Your task to perform on an android device: turn off priority inbox in the gmail app Image 0: 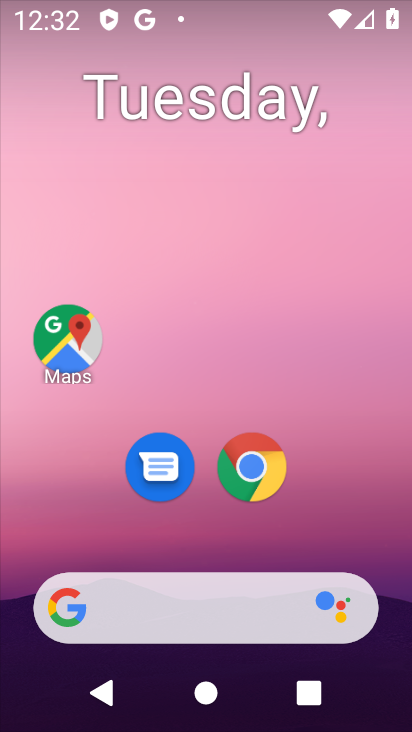
Step 0: drag from (355, 516) to (269, 15)
Your task to perform on an android device: turn off priority inbox in the gmail app Image 1: 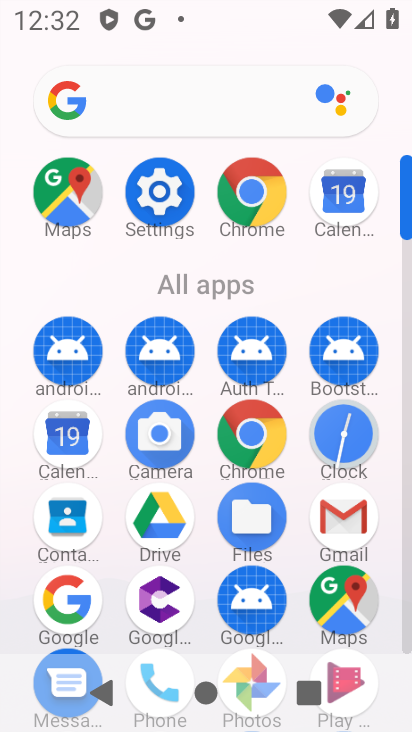
Step 1: drag from (18, 531) to (0, 213)
Your task to perform on an android device: turn off priority inbox in the gmail app Image 2: 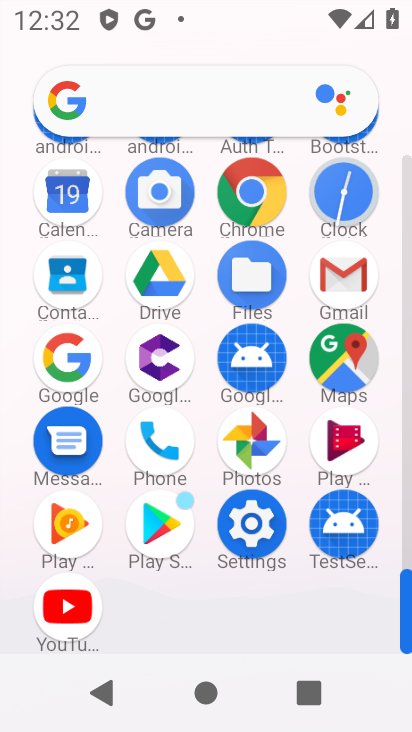
Step 2: click (346, 264)
Your task to perform on an android device: turn off priority inbox in the gmail app Image 3: 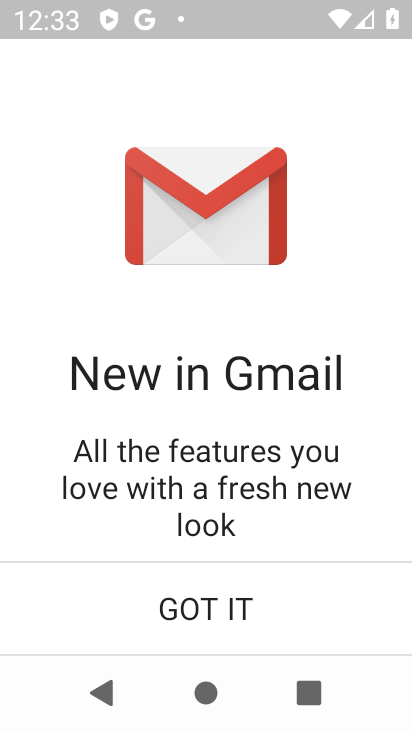
Step 3: click (214, 600)
Your task to perform on an android device: turn off priority inbox in the gmail app Image 4: 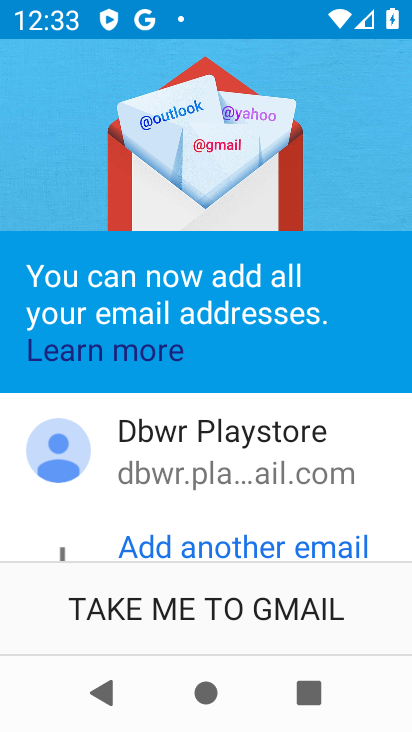
Step 4: click (242, 620)
Your task to perform on an android device: turn off priority inbox in the gmail app Image 5: 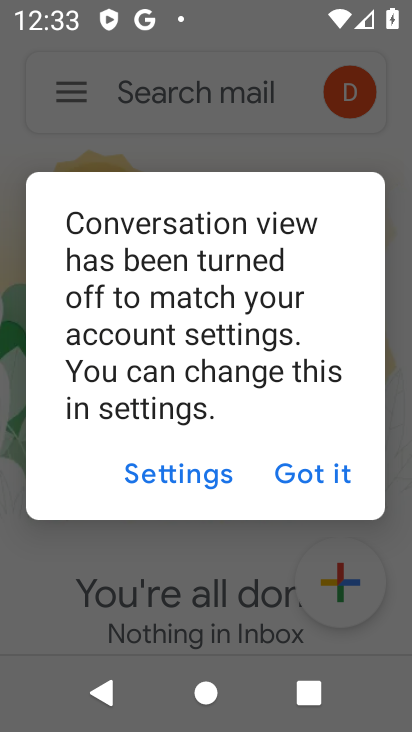
Step 5: click (336, 463)
Your task to perform on an android device: turn off priority inbox in the gmail app Image 6: 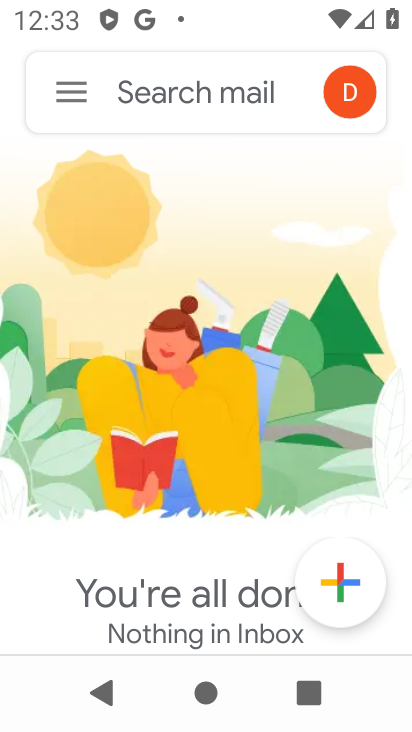
Step 6: click (54, 94)
Your task to perform on an android device: turn off priority inbox in the gmail app Image 7: 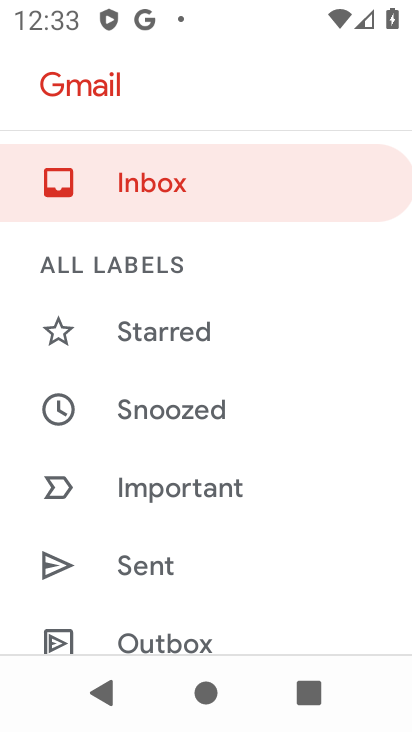
Step 7: drag from (207, 612) to (256, 126)
Your task to perform on an android device: turn off priority inbox in the gmail app Image 8: 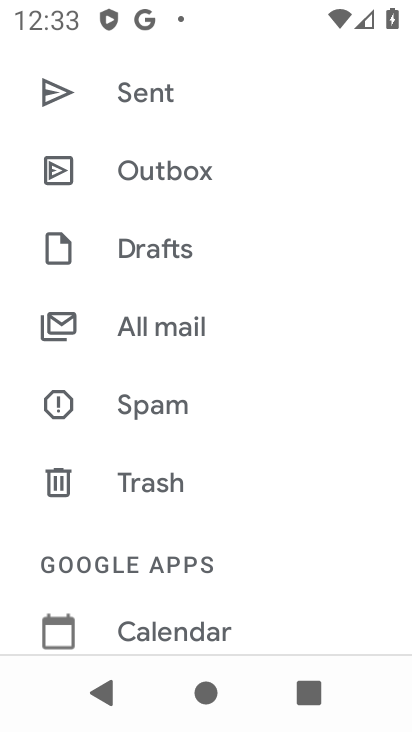
Step 8: drag from (219, 494) to (220, 116)
Your task to perform on an android device: turn off priority inbox in the gmail app Image 9: 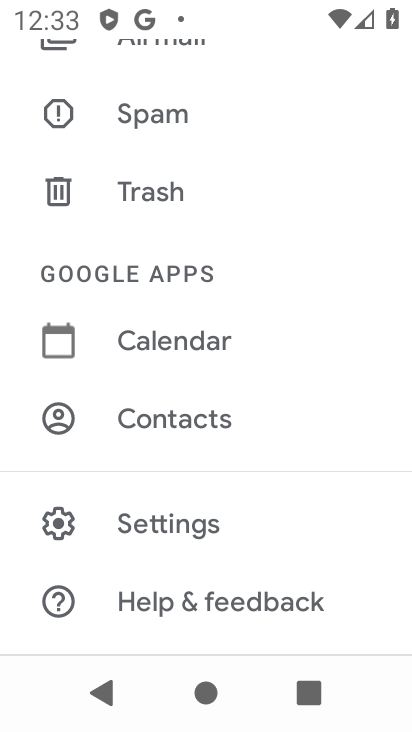
Step 9: drag from (273, 534) to (280, 184)
Your task to perform on an android device: turn off priority inbox in the gmail app Image 10: 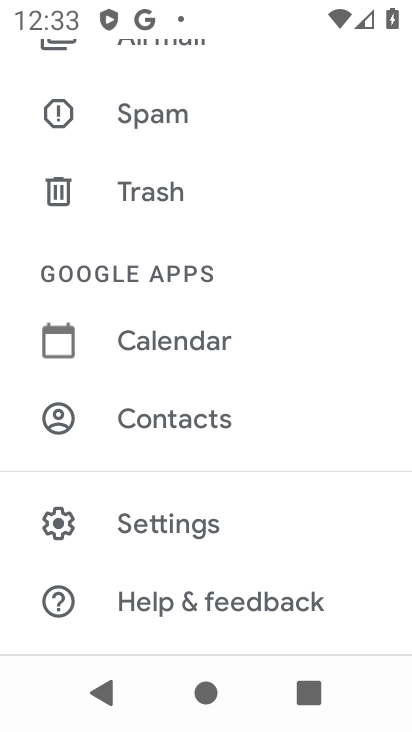
Step 10: click (178, 523)
Your task to perform on an android device: turn off priority inbox in the gmail app Image 11: 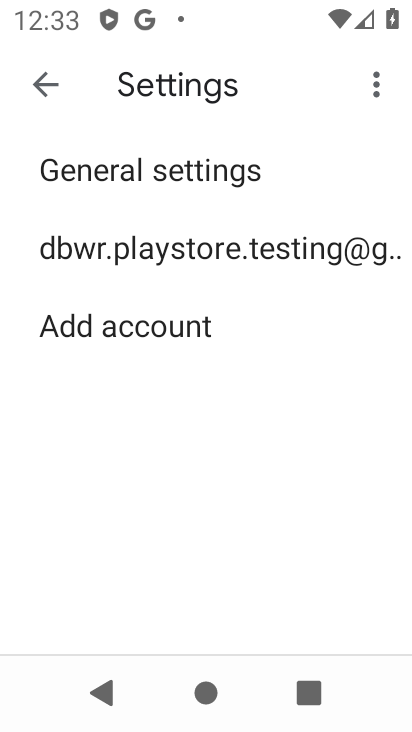
Step 11: click (229, 241)
Your task to perform on an android device: turn off priority inbox in the gmail app Image 12: 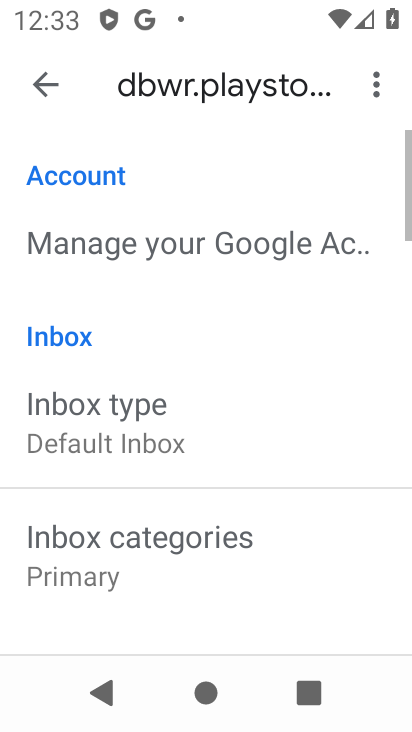
Step 12: drag from (241, 483) to (267, 133)
Your task to perform on an android device: turn off priority inbox in the gmail app Image 13: 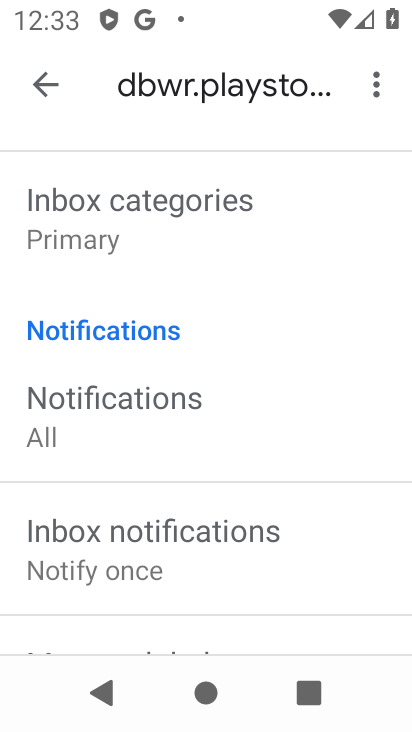
Step 13: drag from (287, 482) to (297, 200)
Your task to perform on an android device: turn off priority inbox in the gmail app Image 14: 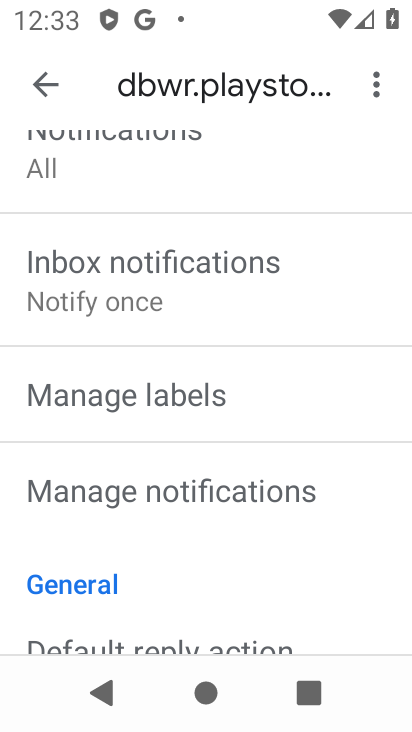
Step 14: drag from (281, 484) to (274, 220)
Your task to perform on an android device: turn off priority inbox in the gmail app Image 15: 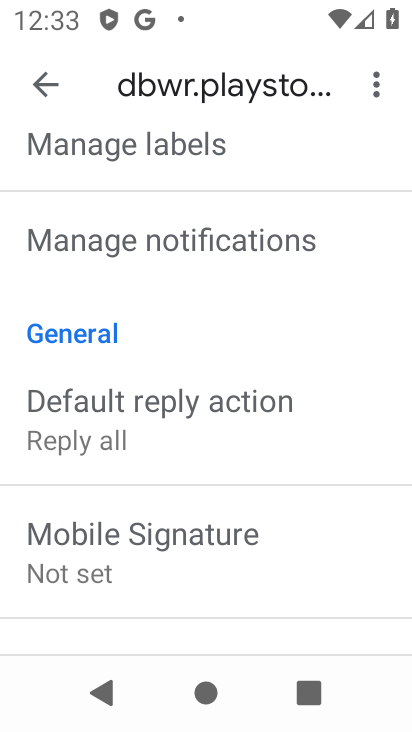
Step 15: drag from (248, 542) to (249, 263)
Your task to perform on an android device: turn off priority inbox in the gmail app Image 16: 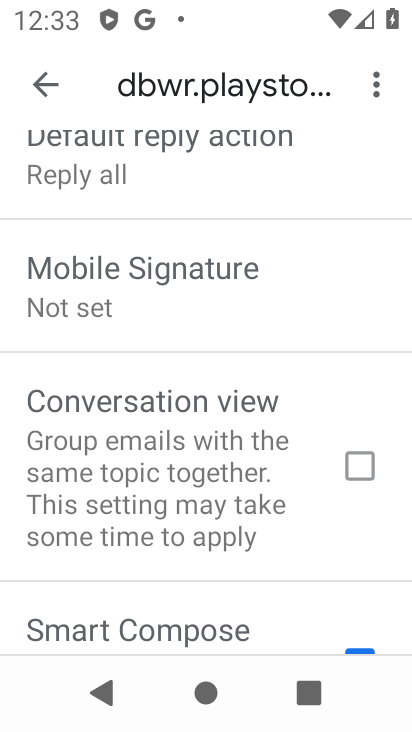
Step 16: drag from (231, 554) to (231, 182)
Your task to perform on an android device: turn off priority inbox in the gmail app Image 17: 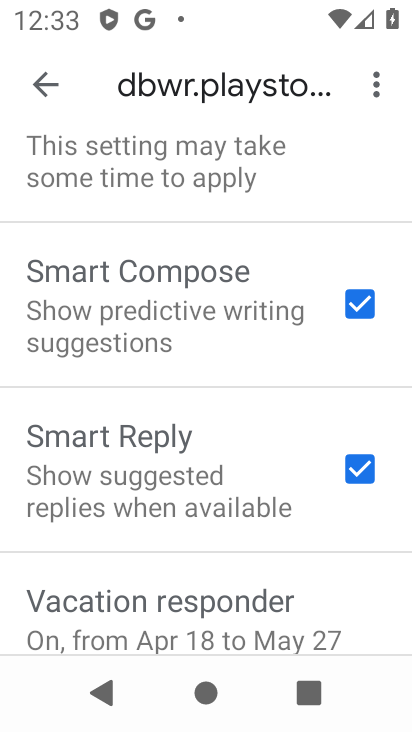
Step 17: drag from (169, 558) to (196, 106)
Your task to perform on an android device: turn off priority inbox in the gmail app Image 18: 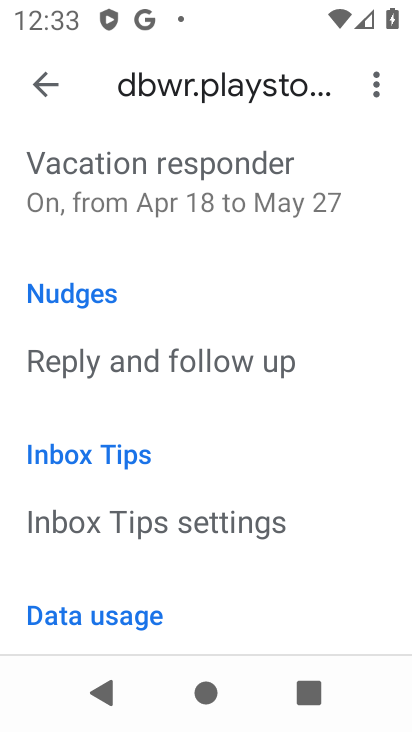
Step 18: drag from (193, 269) to (159, 486)
Your task to perform on an android device: turn off priority inbox in the gmail app Image 19: 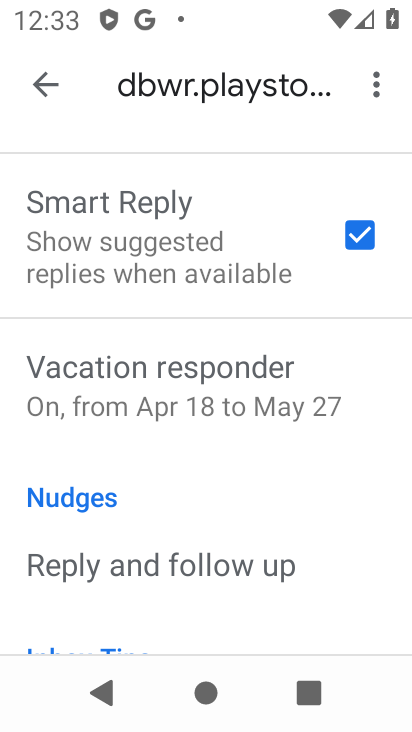
Step 19: drag from (166, 147) to (132, 509)
Your task to perform on an android device: turn off priority inbox in the gmail app Image 20: 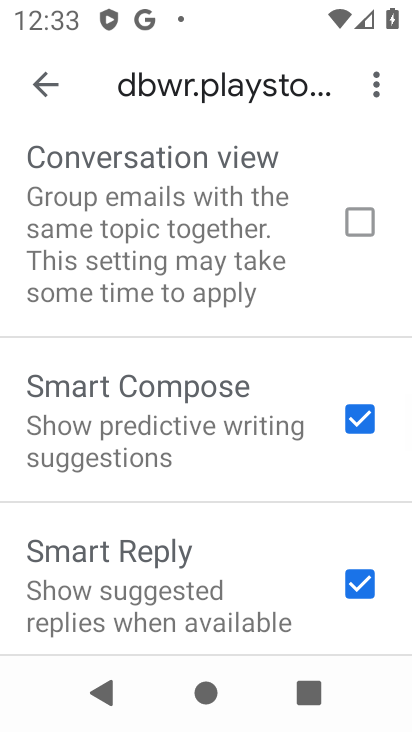
Step 20: drag from (221, 165) to (193, 445)
Your task to perform on an android device: turn off priority inbox in the gmail app Image 21: 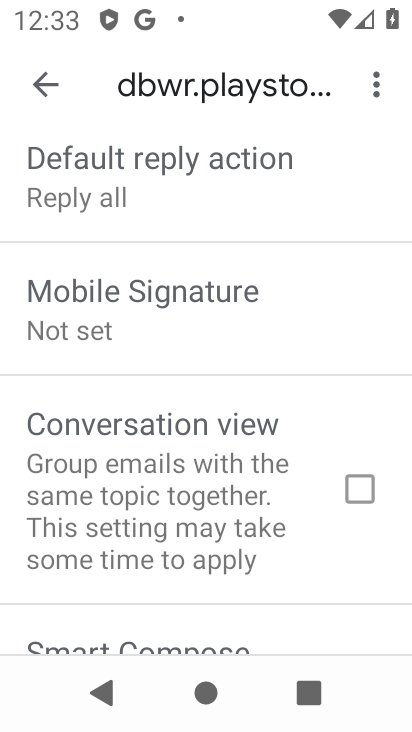
Step 21: drag from (252, 176) to (207, 518)
Your task to perform on an android device: turn off priority inbox in the gmail app Image 22: 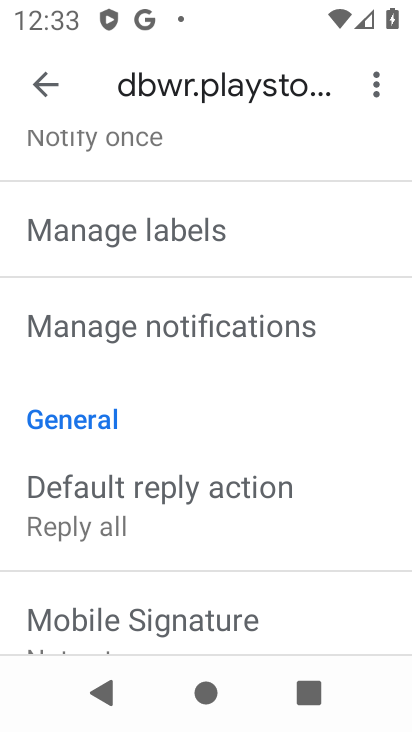
Step 22: drag from (208, 251) to (195, 521)
Your task to perform on an android device: turn off priority inbox in the gmail app Image 23: 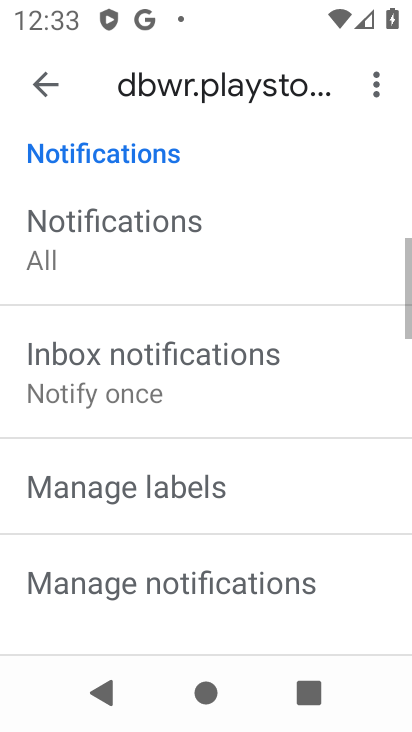
Step 23: drag from (216, 452) to (204, 552)
Your task to perform on an android device: turn off priority inbox in the gmail app Image 24: 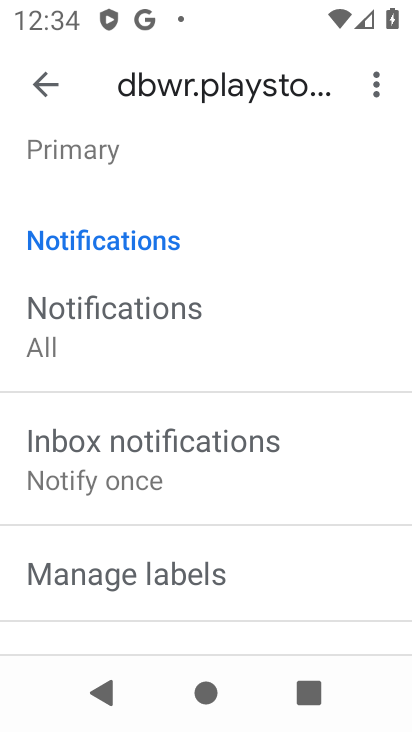
Step 24: drag from (253, 373) to (225, 510)
Your task to perform on an android device: turn off priority inbox in the gmail app Image 25: 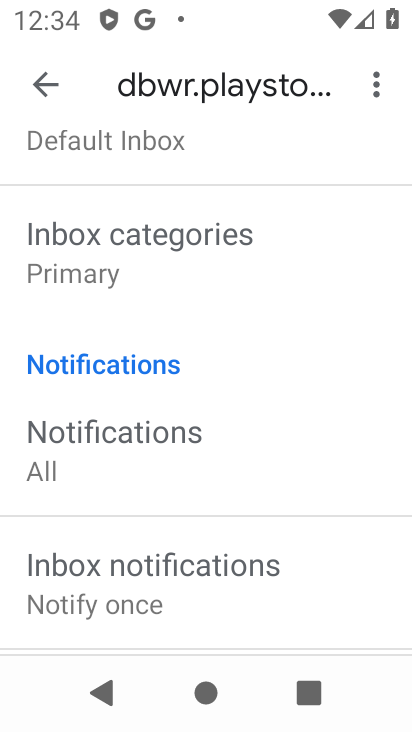
Step 25: click (202, 250)
Your task to perform on an android device: turn off priority inbox in the gmail app Image 26: 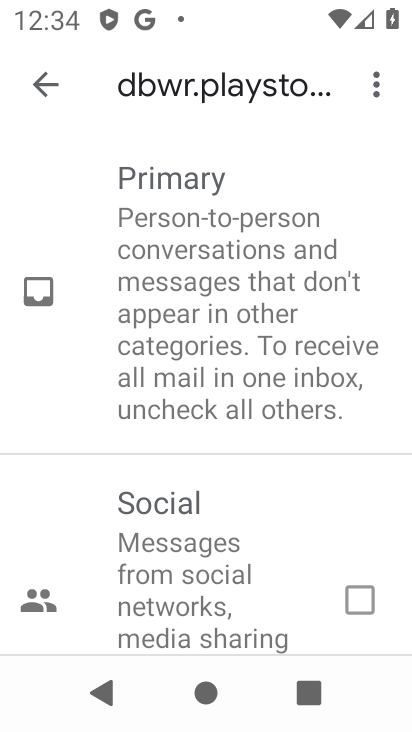
Step 26: drag from (208, 556) to (226, 129)
Your task to perform on an android device: turn off priority inbox in the gmail app Image 27: 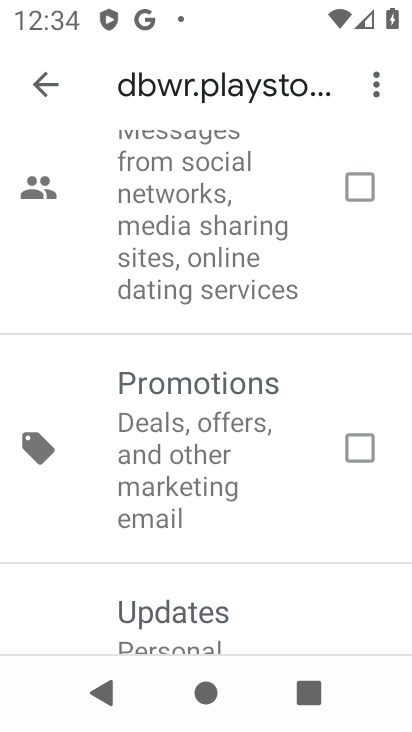
Step 27: drag from (213, 207) to (165, 552)
Your task to perform on an android device: turn off priority inbox in the gmail app Image 28: 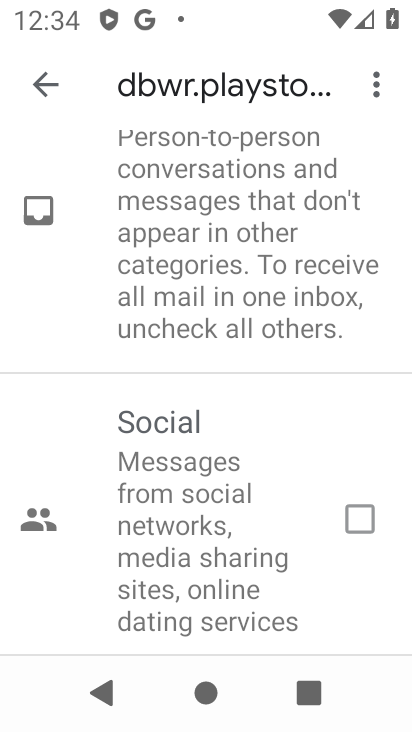
Step 28: click (48, 64)
Your task to perform on an android device: turn off priority inbox in the gmail app Image 29: 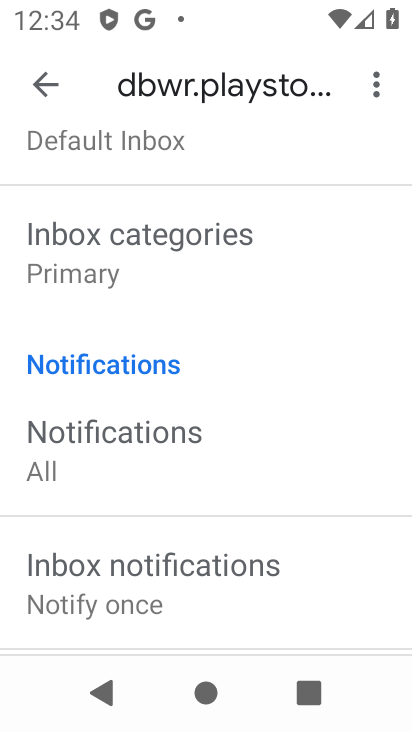
Step 29: task complete